Your task to perform on an android device: clear history in the chrome app Image 0: 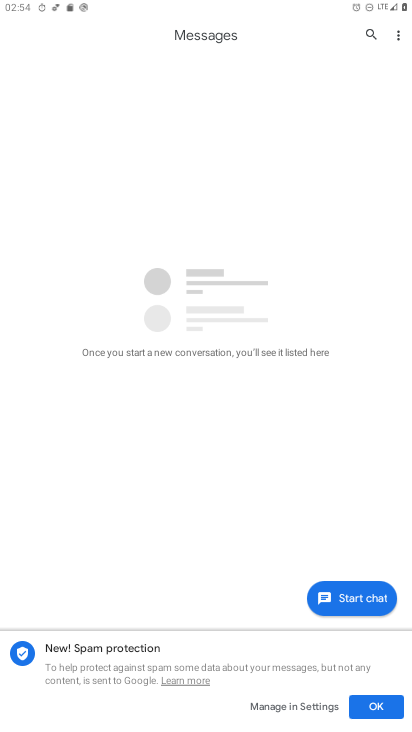
Step 0: press home button
Your task to perform on an android device: clear history in the chrome app Image 1: 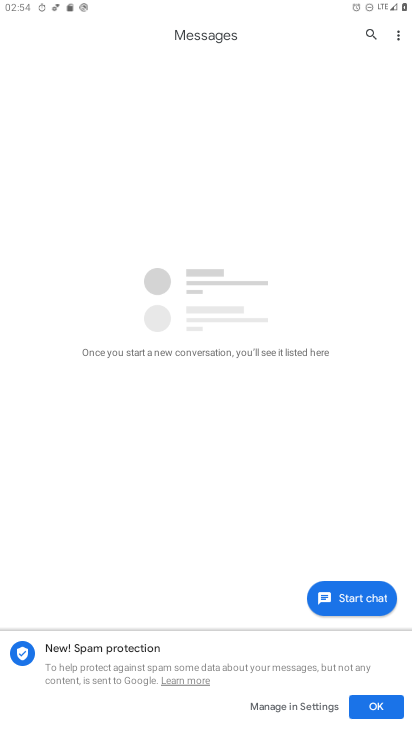
Step 1: press home button
Your task to perform on an android device: clear history in the chrome app Image 2: 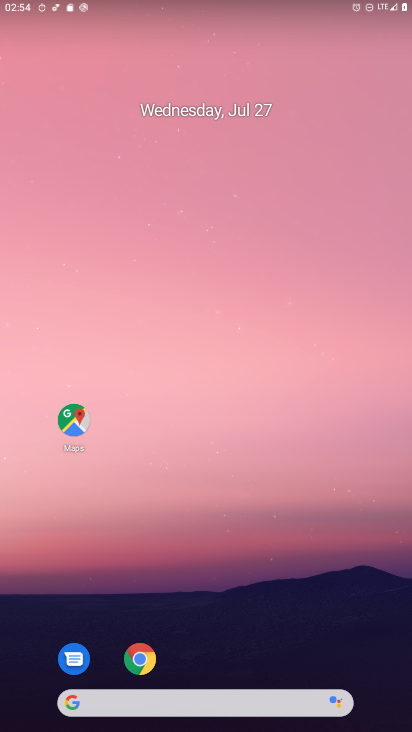
Step 2: drag from (305, 610) to (259, 73)
Your task to perform on an android device: clear history in the chrome app Image 3: 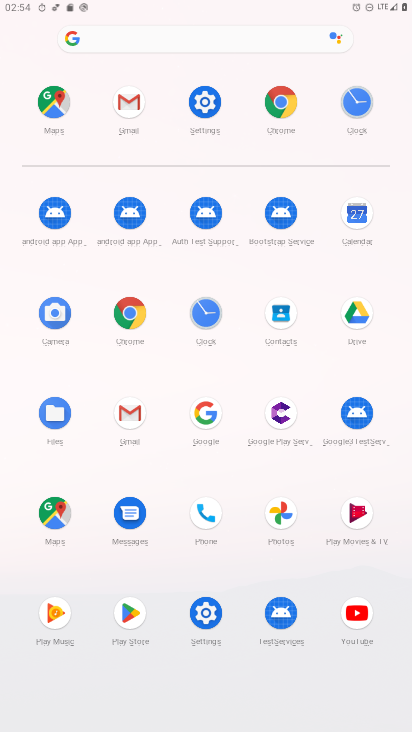
Step 3: click (127, 317)
Your task to perform on an android device: clear history in the chrome app Image 4: 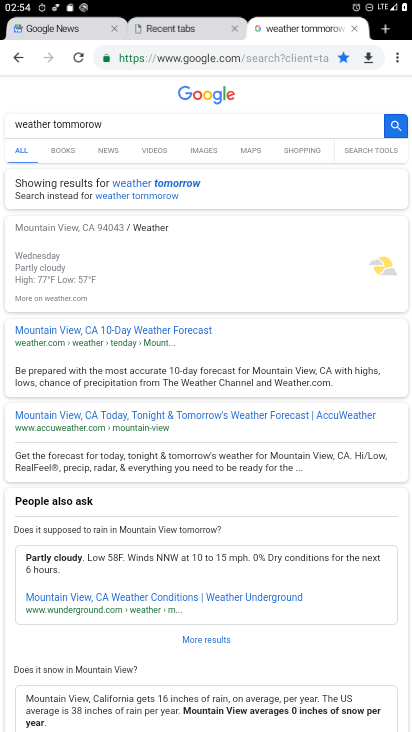
Step 4: drag from (398, 58) to (302, 176)
Your task to perform on an android device: clear history in the chrome app Image 5: 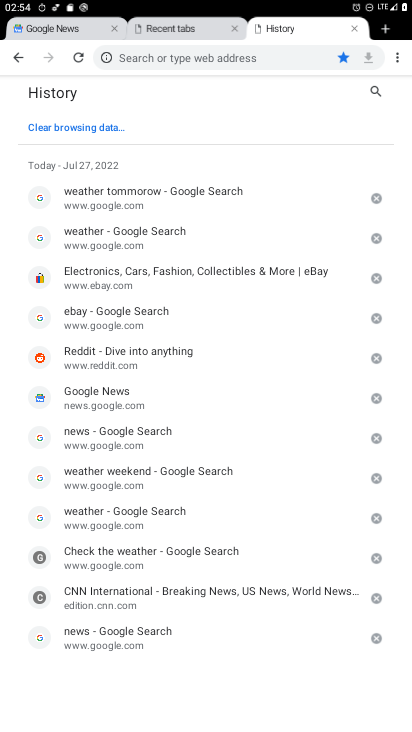
Step 5: click (96, 130)
Your task to perform on an android device: clear history in the chrome app Image 6: 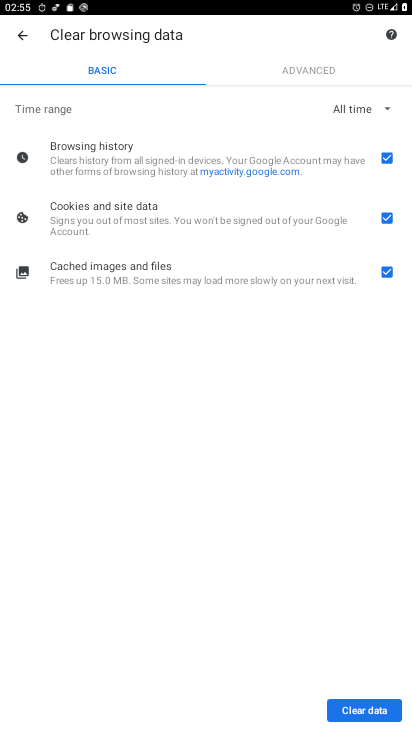
Step 6: click (391, 705)
Your task to perform on an android device: clear history in the chrome app Image 7: 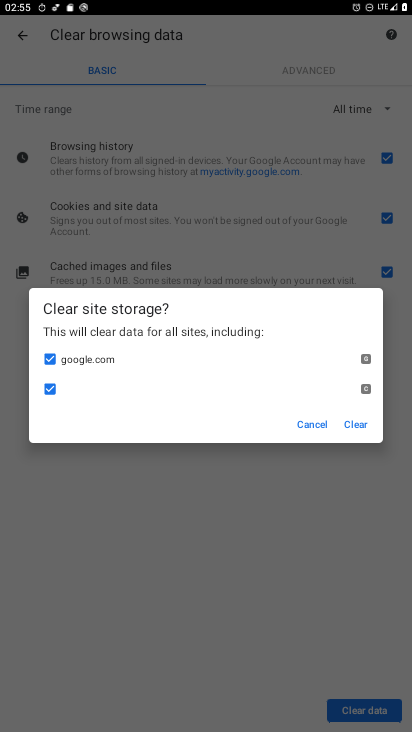
Step 7: click (364, 421)
Your task to perform on an android device: clear history in the chrome app Image 8: 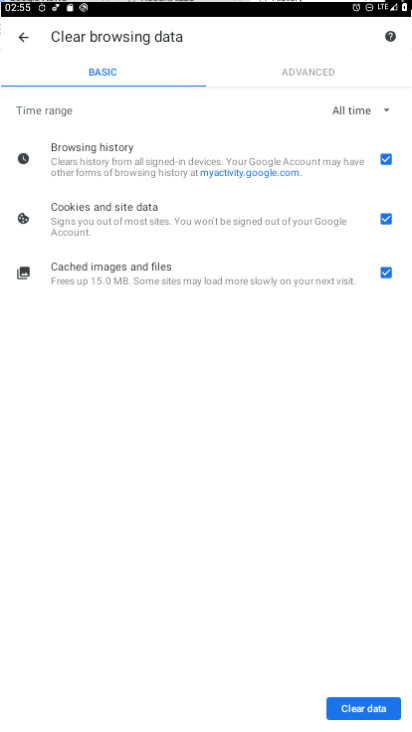
Step 8: task complete